Your task to perform on an android device: Is it going to rain this weekend? Image 0: 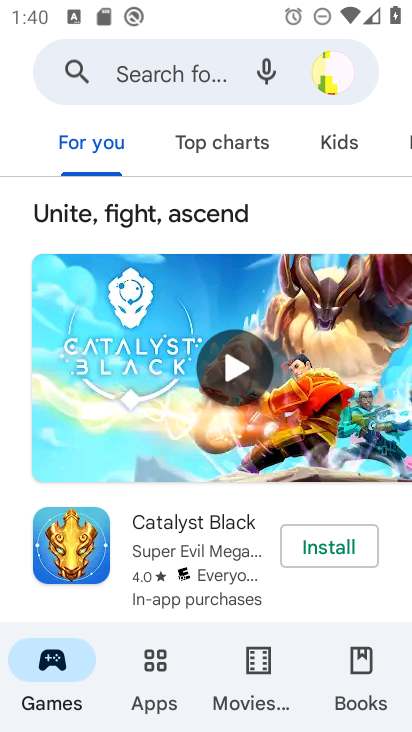
Step 0: press home button
Your task to perform on an android device: Is it going to rain this weekend? Image 1: 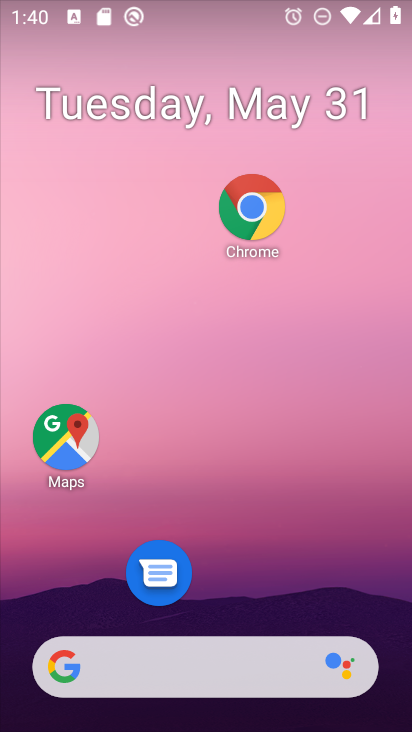
Step 1: drag from (250, 639) to (294, 183)
Your task to perform on an android device: Is it going to rain this weekend? Image 2: 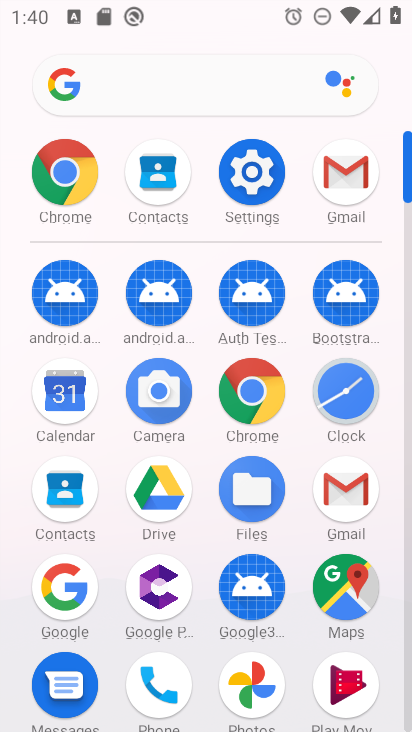
Step 2: drag from (246, 490) to (269, 279)
Your task to perform on an android device: Is it going to rain this weekend? Image 3: 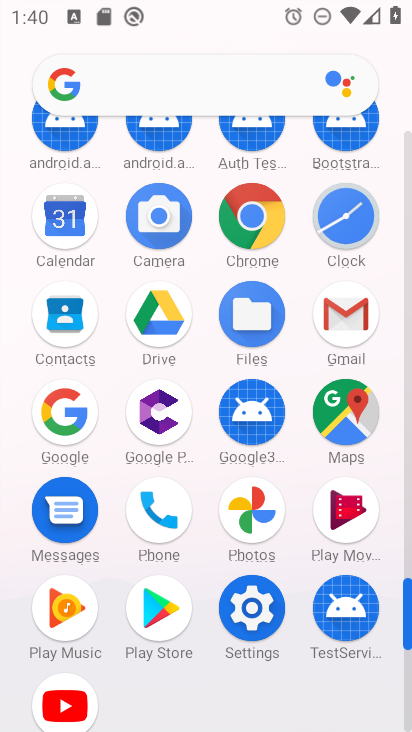
Step 3: click (66, 442)
Your task to perform on an android device: Is it going to rain this weekend? Image 4: 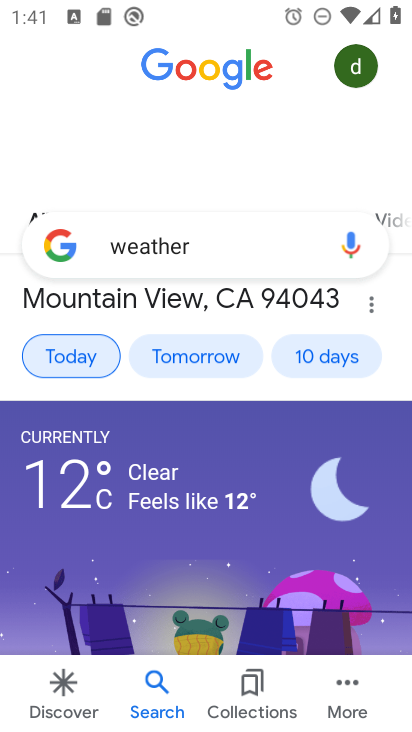
Step 4: task complete